Your task to perform on an android device: refresh tabs in the chrome app Image 0: 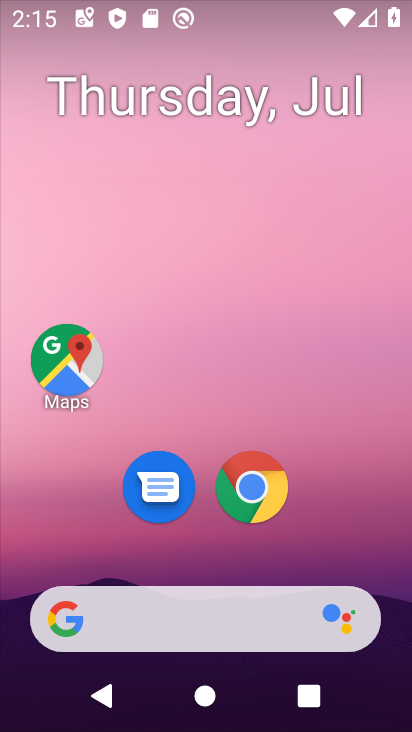
Step 0: drag from (355, 553) to (367, 140)
Your task to perform on an android device: refresh tabs in the chrome app Image 1: 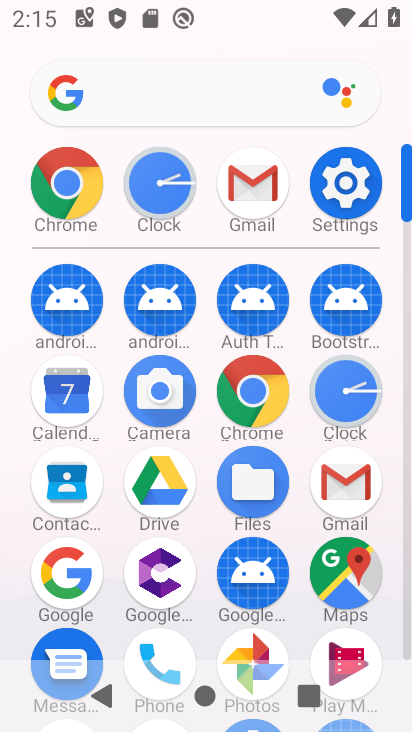
Step 1: click (259, 392)
Your task to perform on an android device: refresh tabs in the chrome app Image 2: 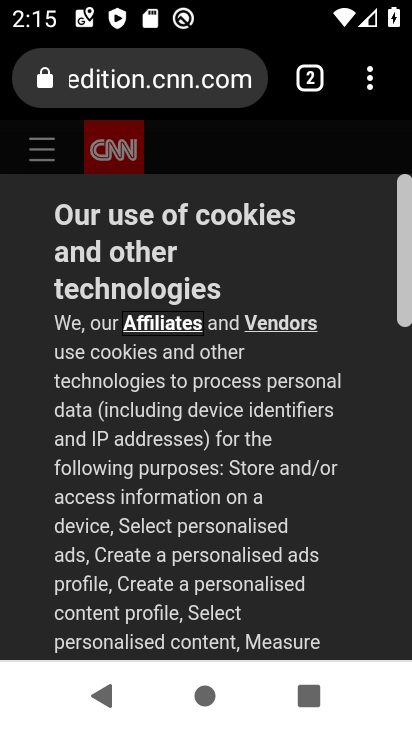
Step 2: press home button
Your task to perform on an android device: refresh tabs in the chrome app Image 3: 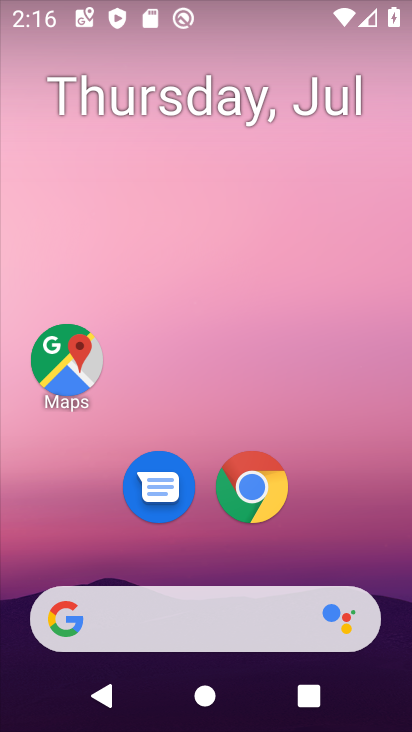
Step 3: drag from (351, 549) to (356, 144)
Your task to perform on an android device: refresh tabs in the chrome app Image 4: 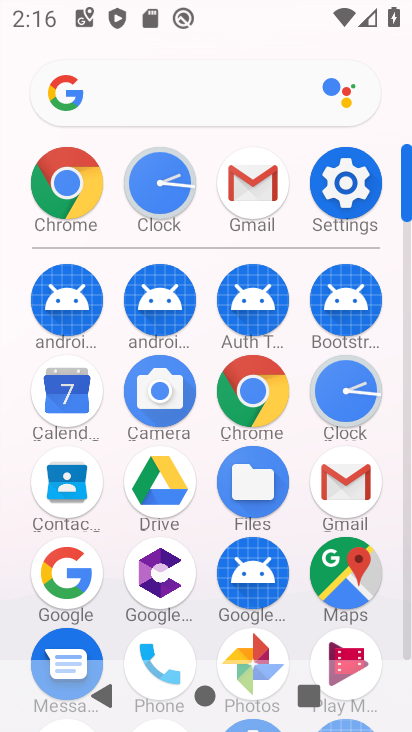
Step 4: click (260, 391)
Your task to perform on an android device: refresh tabs in the chrome app Image 5: 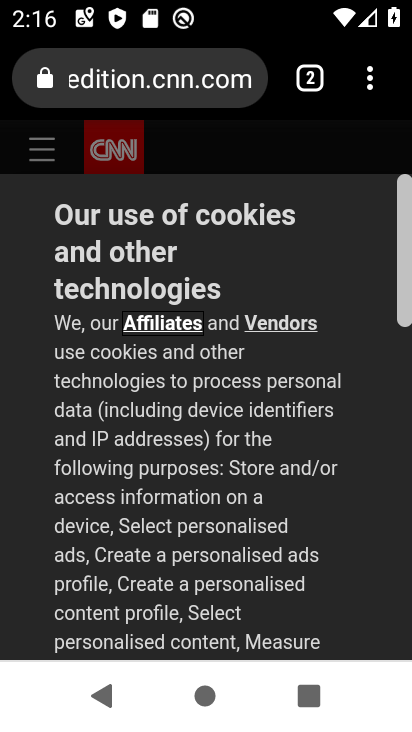
Step 5: click (371, 91)
Your task to perform on an android device: refresh tabs in the chrome app Image 6: 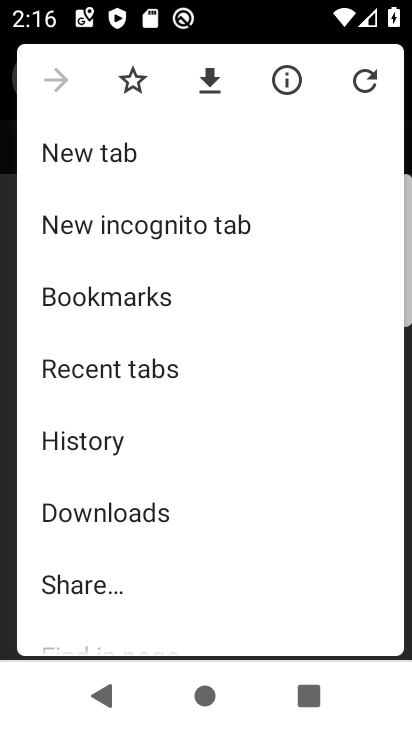
Step 6: click (374, 80)
Your task to perform on an android device: refresh tabs in the chrome app Image 7: 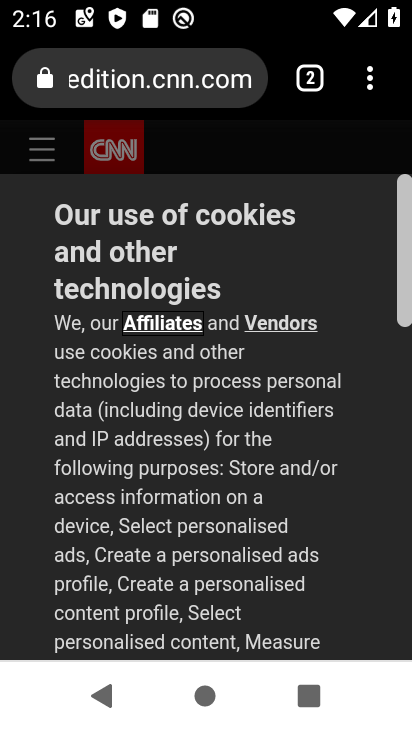
Step 7: task complete